Your task to perform on an android device: Open Maps and search for coffee Image 0: 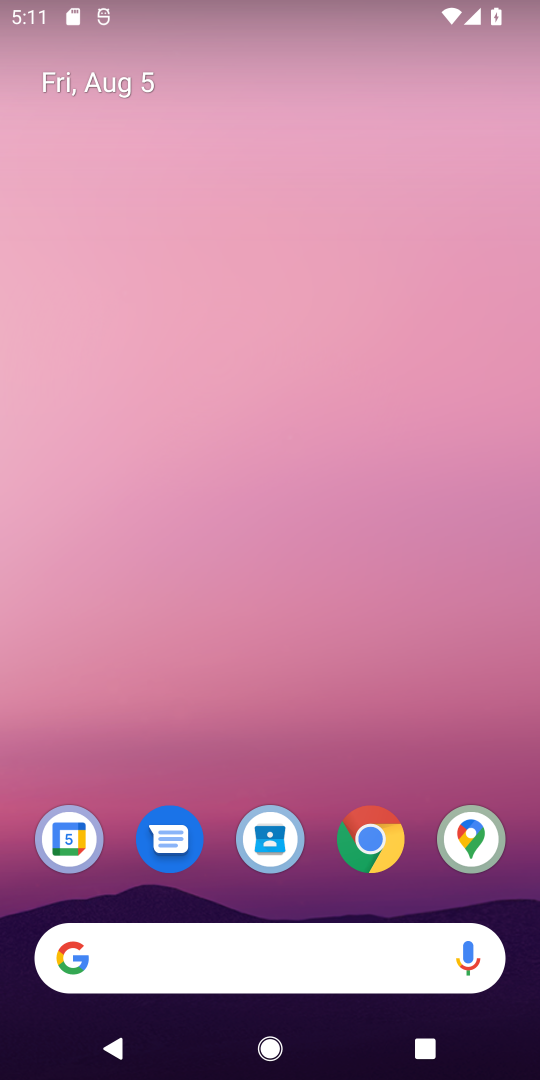
Step 0: drag from (288, 700) to (238, 278)
Your task to perform on an android device: Open Maps and search for coffee Image 1: 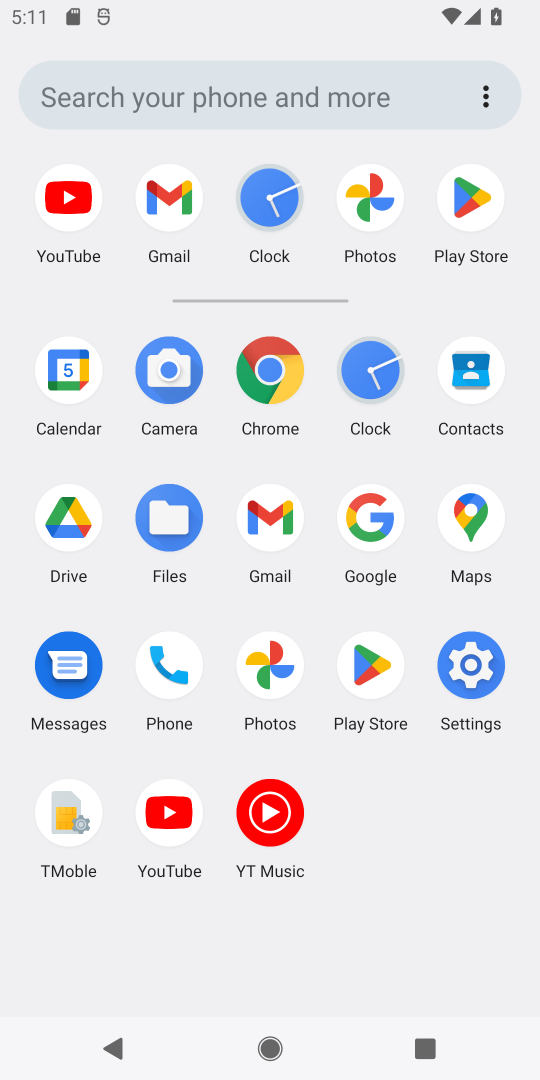
Step 1: click (464, 508)
Your task to perform on an android device: Open Maps and search for coffee Image 2: 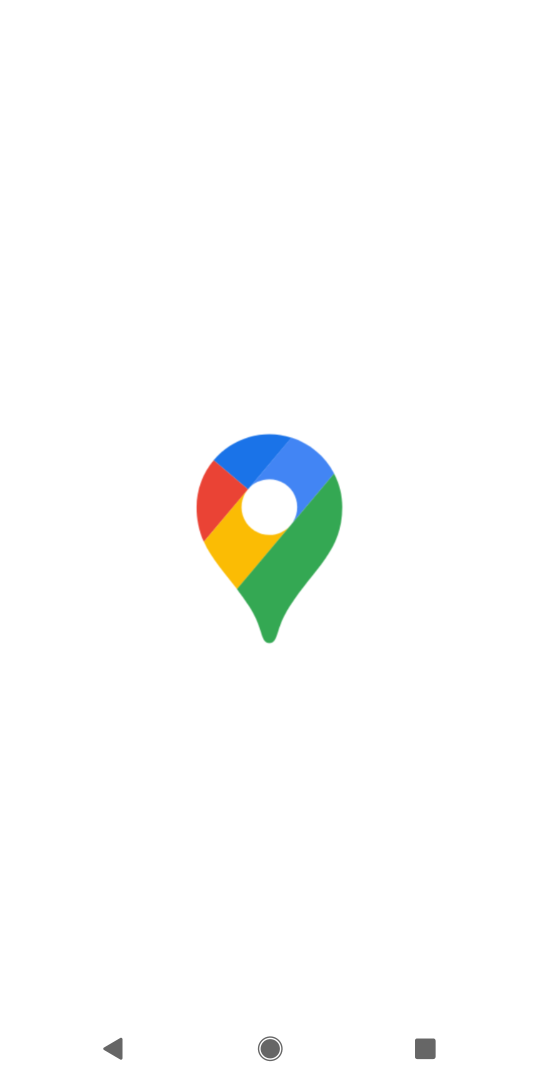
Step 2: task complete